Your task to perform on an android device: change notification settings in the gmail app Image 0: 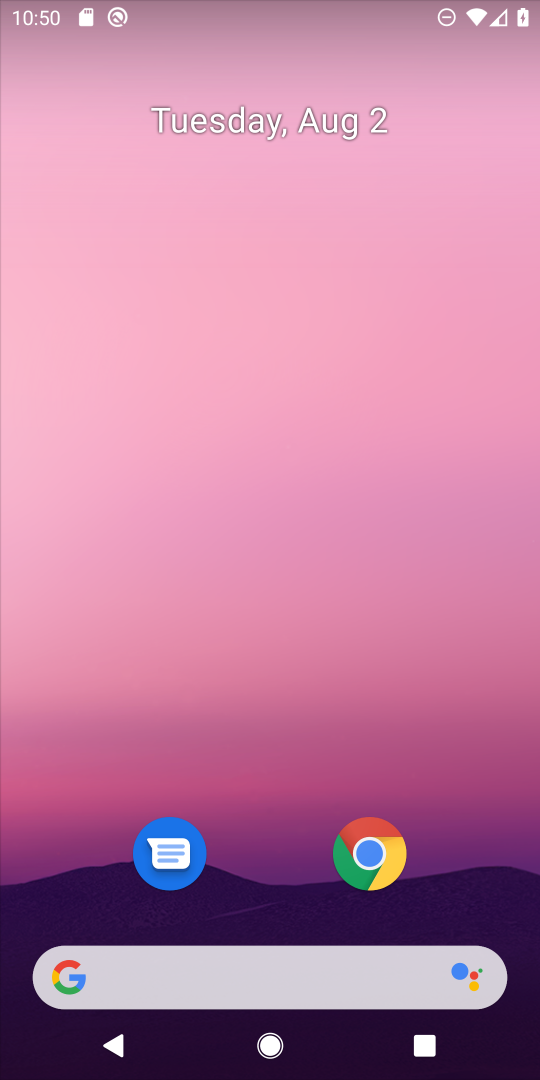
Step 0: drag from (444, 830) to (437, 324)
Your task to perform on an android device: change notification settings in the gmail app Image 1: 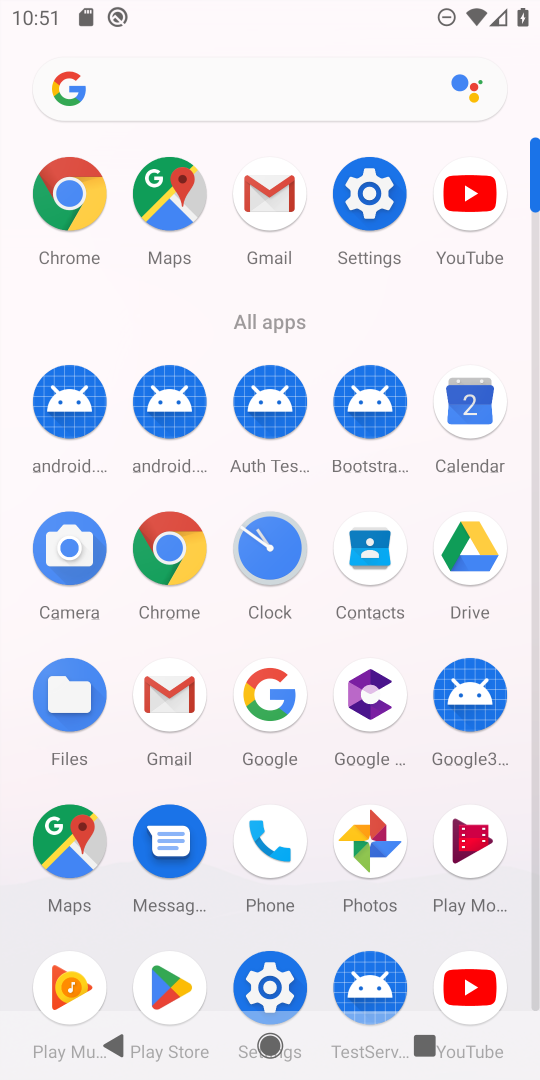
Step 1: click (175, 706)
Your task to perform on an android device: change notification settings in the gmail app Image 2: 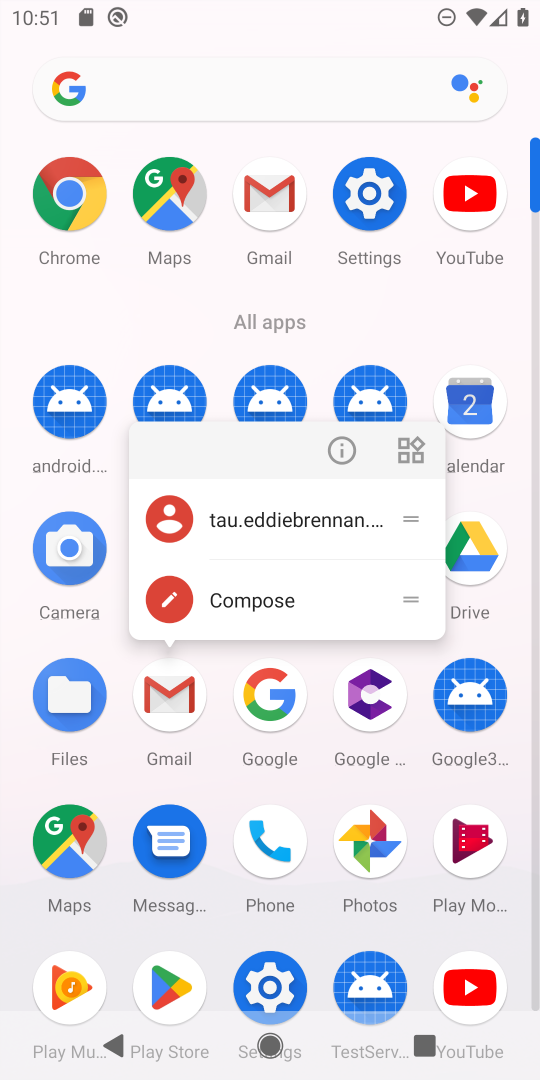
Step 2: click (346, 455)
Your task to perform on an android device: change notification settings in the gmail app Image 3: 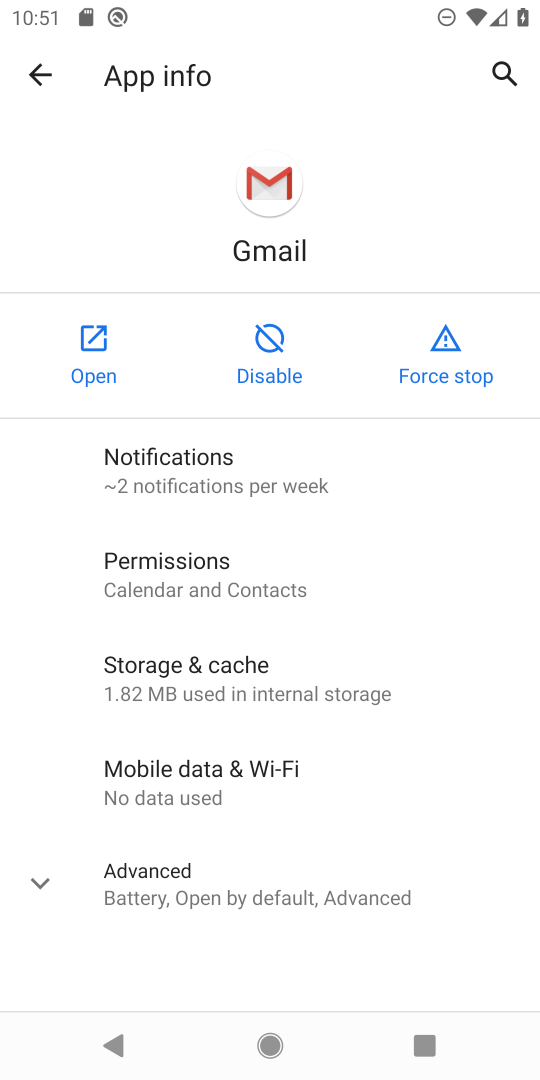
Step 3: click (215, 481)
Your task to perform on an android device: change notification settings in the gmail app Image 4: 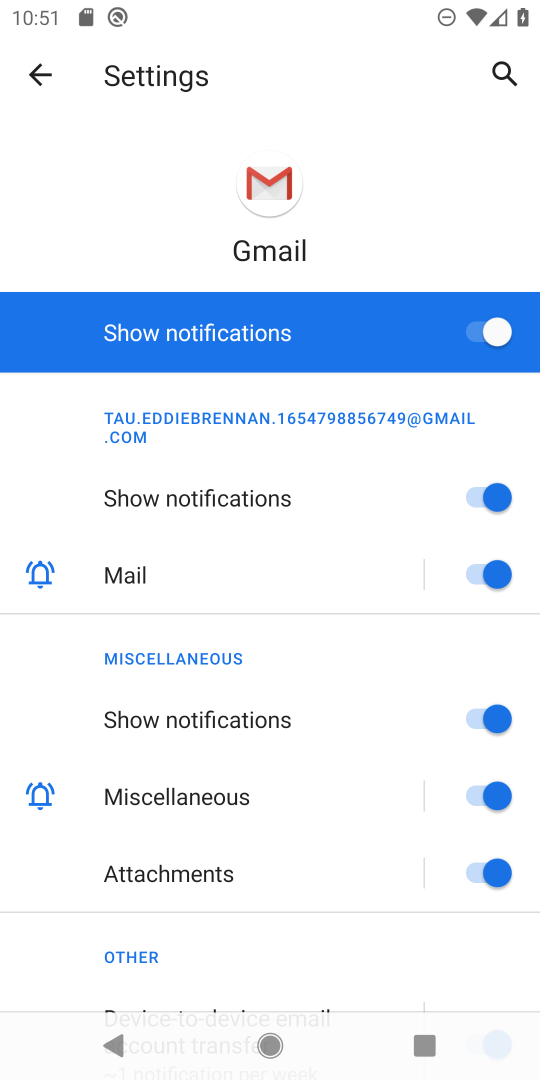
Step 4: click (469, 339)
Your task to perform on an android device: change notification settings in the gmail app Image 5: 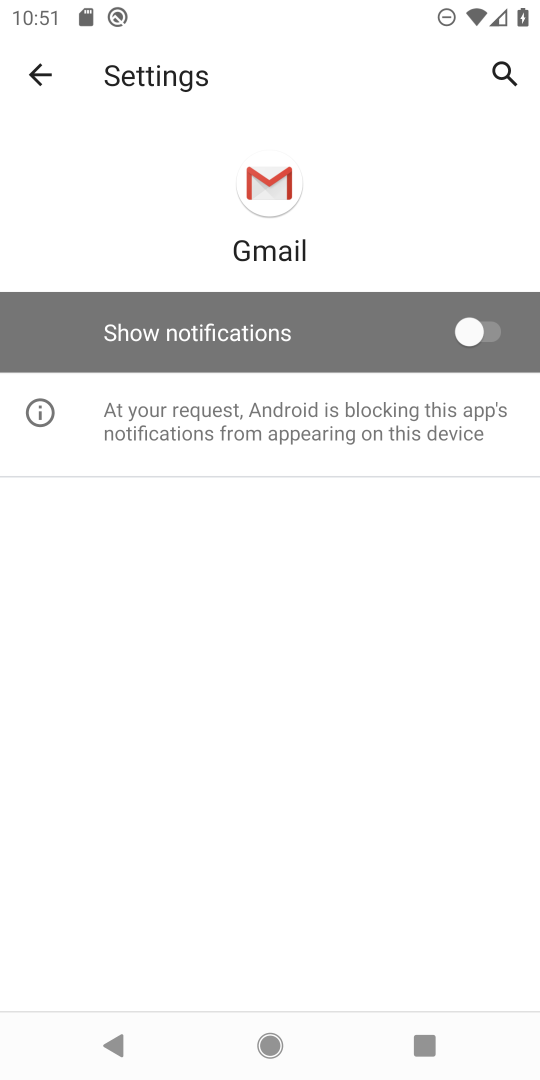
Step 5: task complete